Your task to perform on an android device: Open settings Image 0: 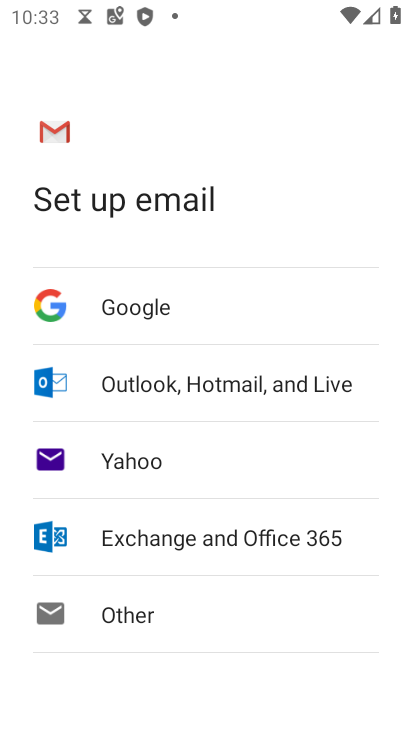
Step 0: press back button
Your task to perform on an android device: Open settings Image 1: 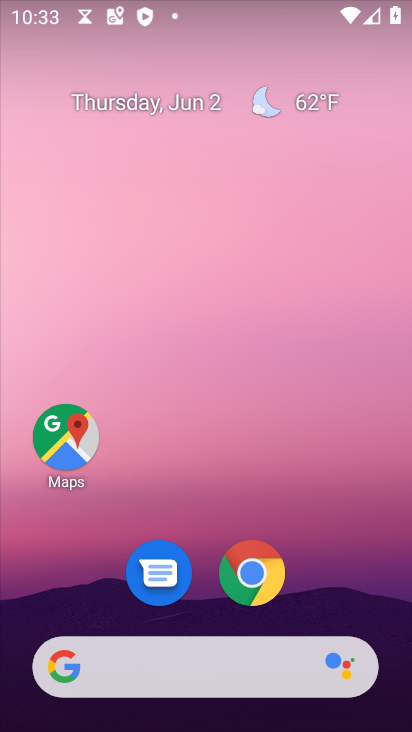
Step 1: drag from (332, 572) to (297, 0)
Your task to perform on an android device: Open settings Image 2: 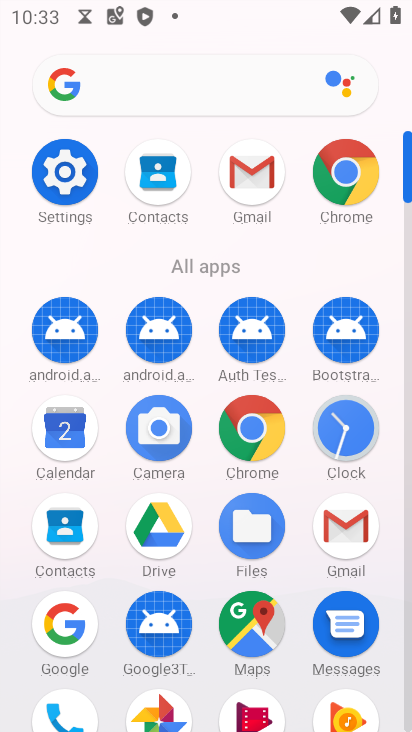
Step 2: click (66, 169)
Your task to perform on an android device: Open settings Image 3: 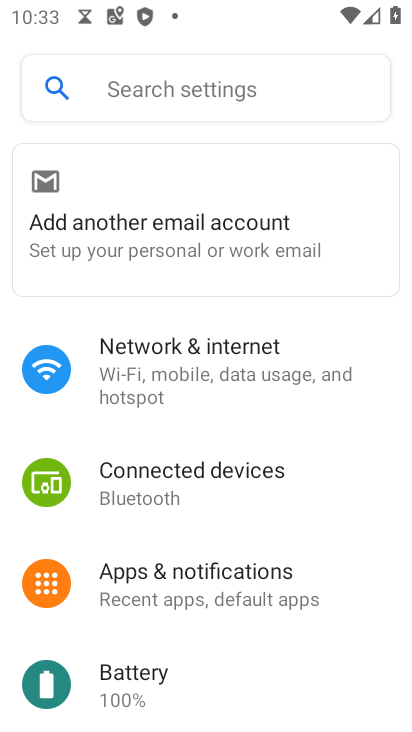
Step 3: task complete